Your task to perform on an android device: Clear the shopping cart on target.com. Add "bose soundsport free" to the cart on target.com, then select checkout. Image 0: 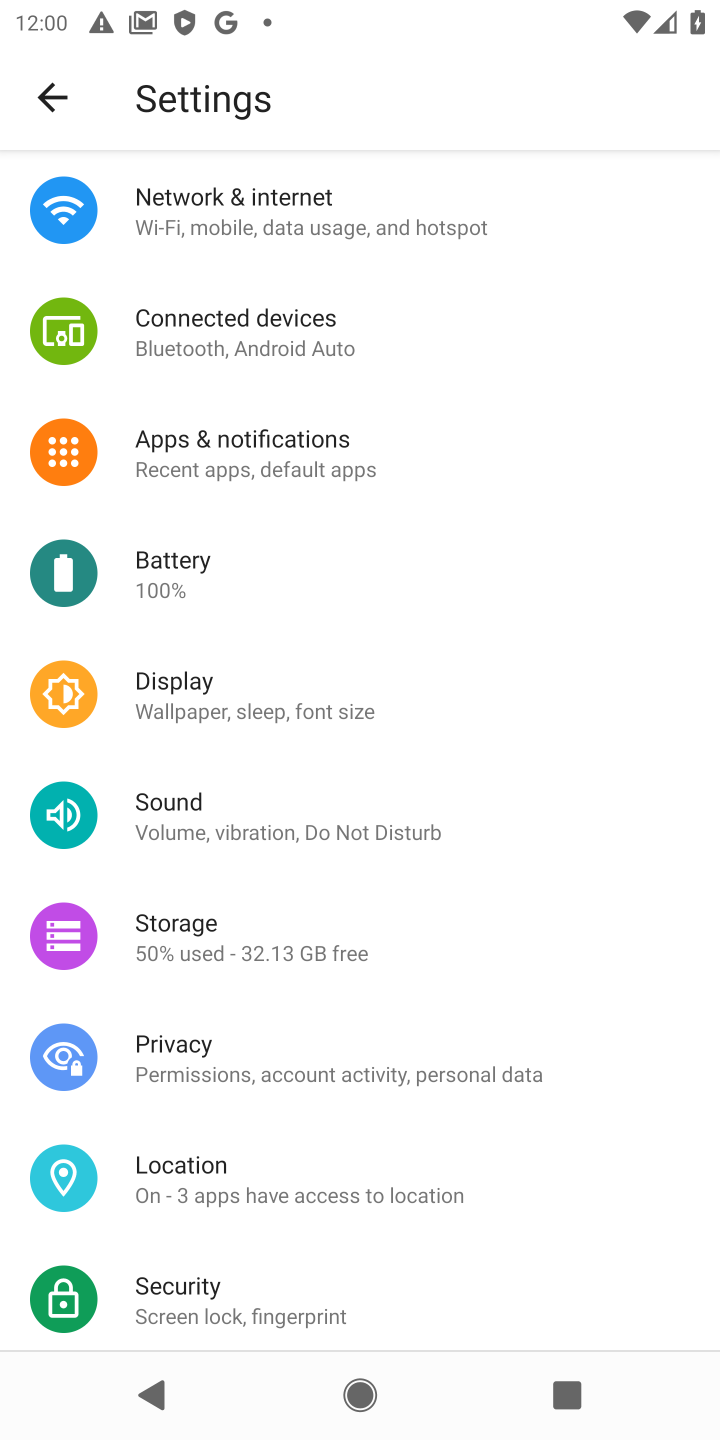
Step 0: press home button
Your task to perform on an android device: Clear the shopping cart on target.com. Add "bose soundsport free" to the cart on target.com, then select checkout. Image 1: 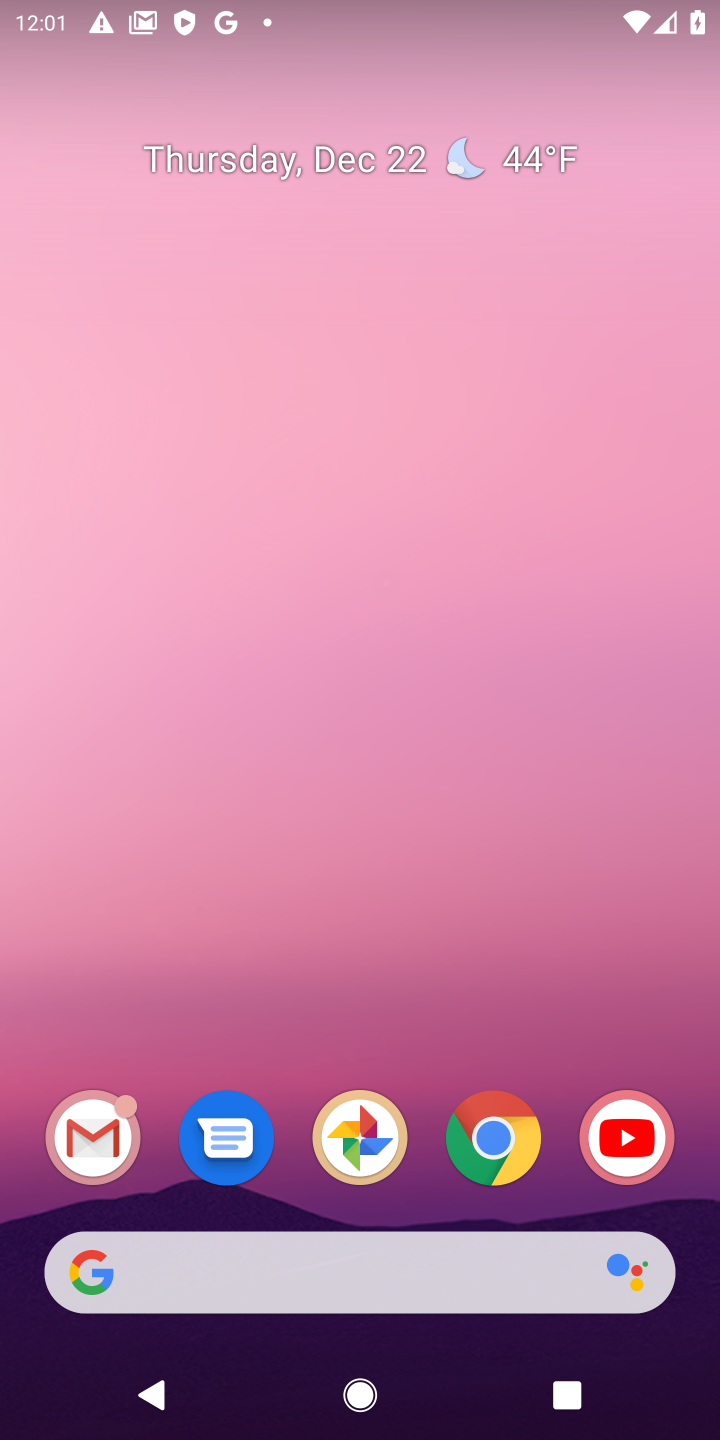
Step 1: click (498, 1142)
Your task to perform on an android device: Clear the shopping cart on target.com. Add "bose soundsport free" to the cart on target.com, then select checkout. Image 2: 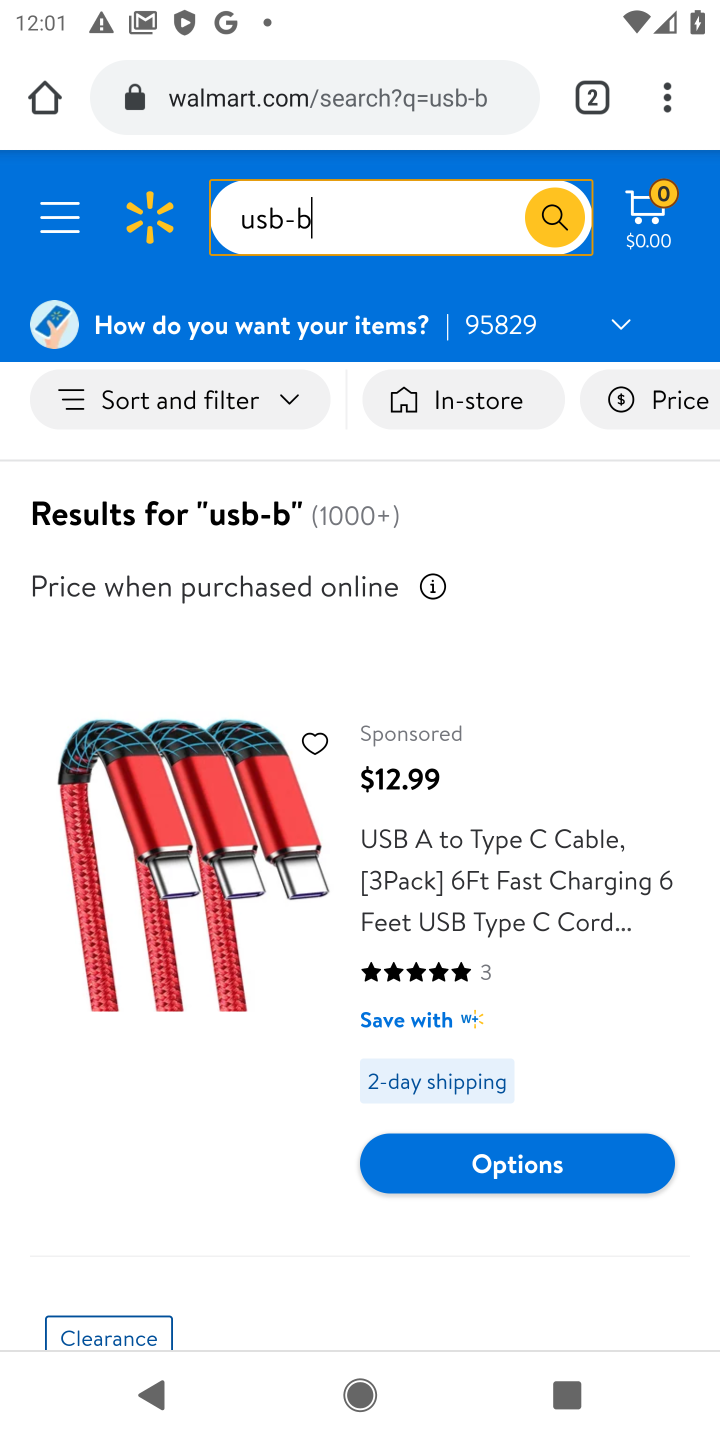
Step 2: click (256, 113)
Your task to perform on an android device: Clear the shopping cart on target.com. Add "bose soundsport free" to the cart on target.com, then select checkout. Image 3: 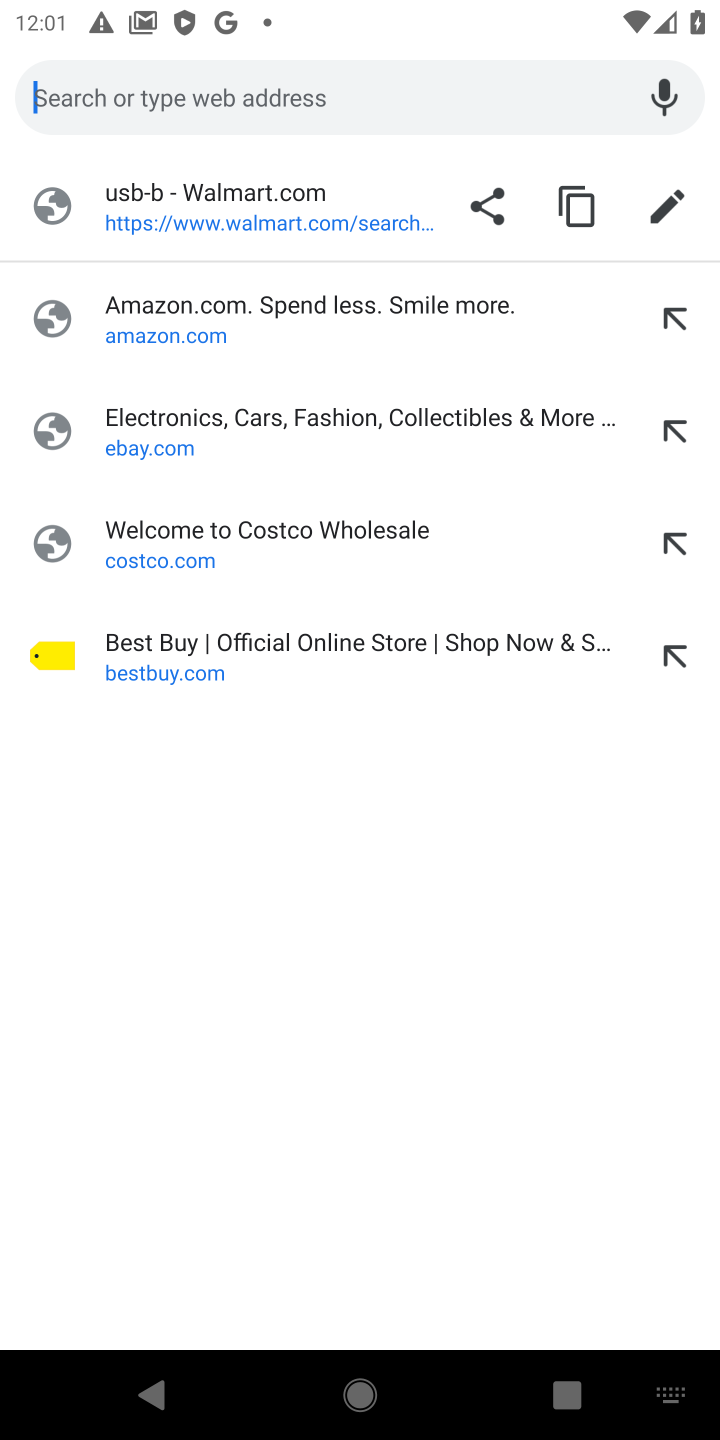
Step 3: type "target.co"
Your task to perform on an android device: Clear the shopping cart on target.com. Add "bose soundsport free" to the cart on target.com, then select checkout. Image 4: 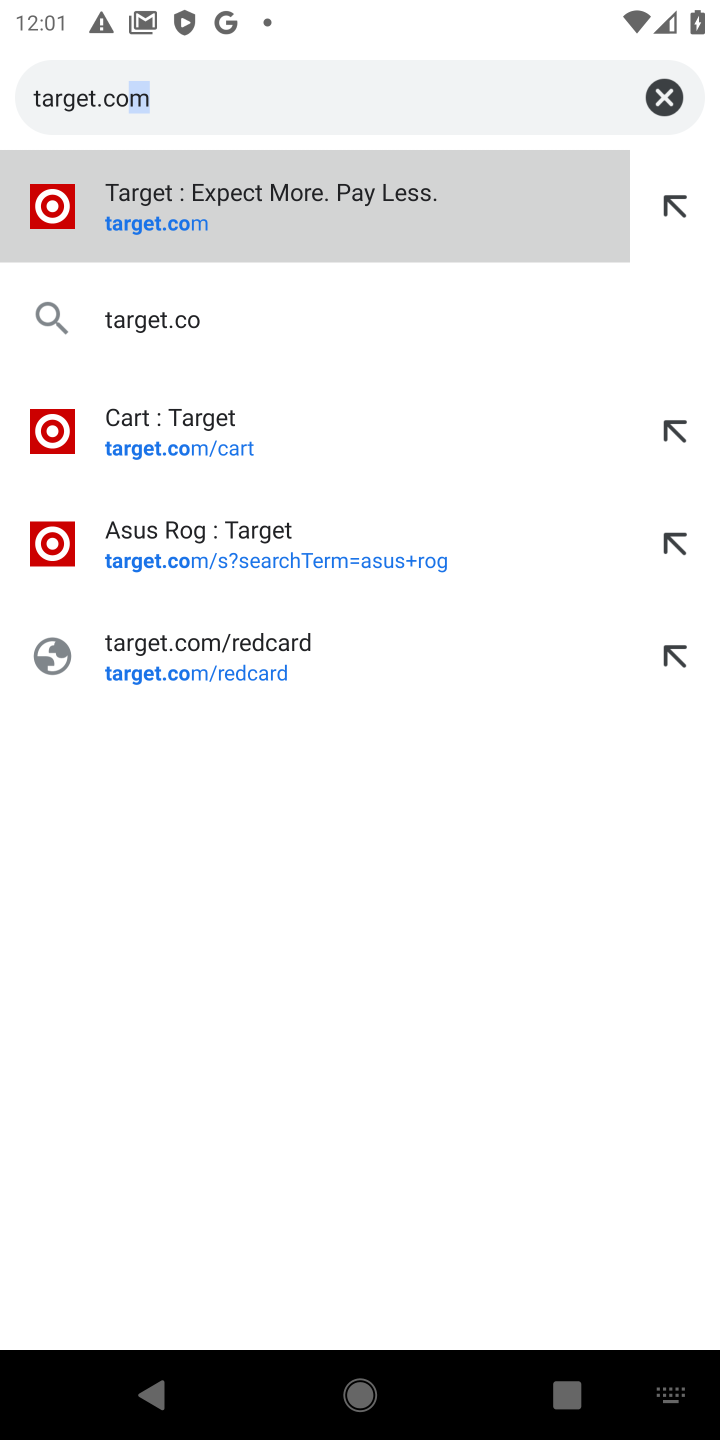
Step 4: click (117, 222)
Your task to perform on an android device: Clear the shopping cart on target.com. Add "bose soundsport free" to the cart on target.com, then select checkout. Image 5: 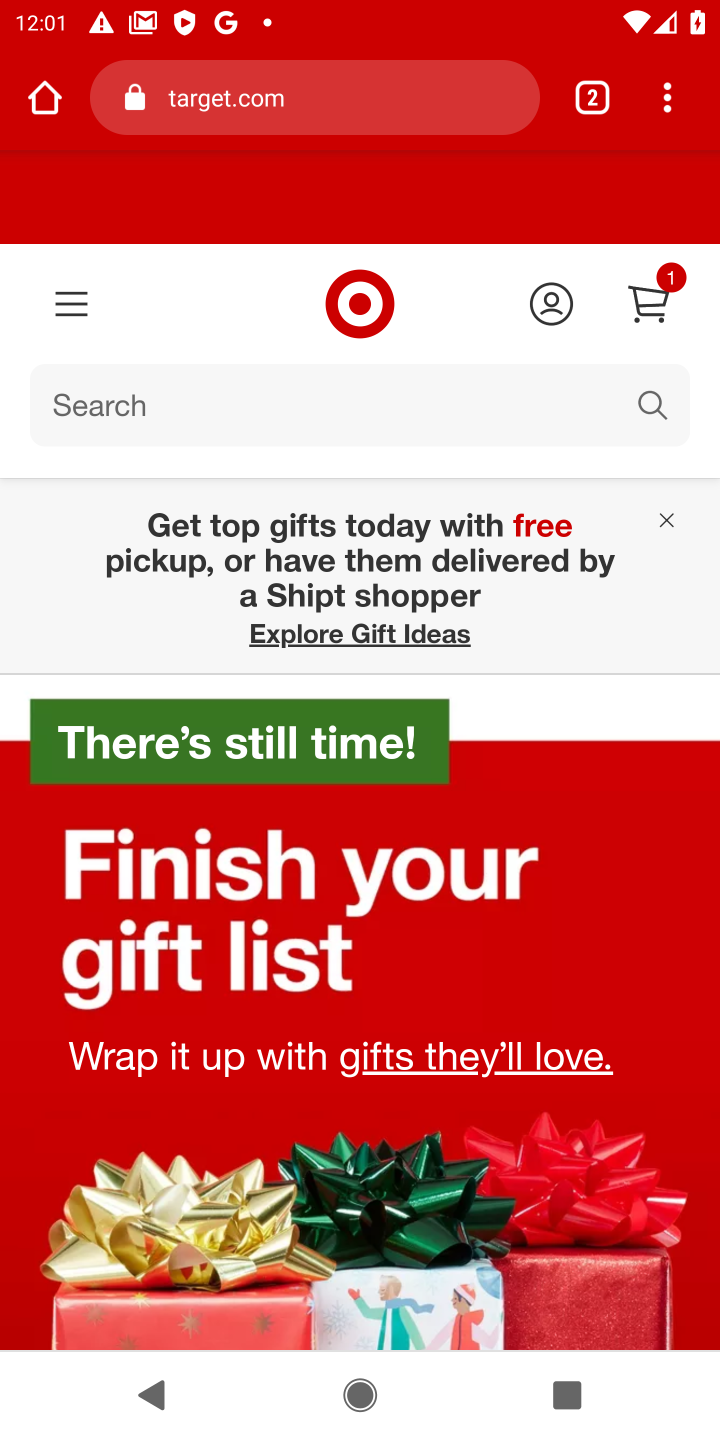
Step 5: click (652, 305)
Your task to perform on an android device: Clear the shopping cart on target.com. Add "bose soundsport free" to the cart on target.com, then select checkout. Image 6: 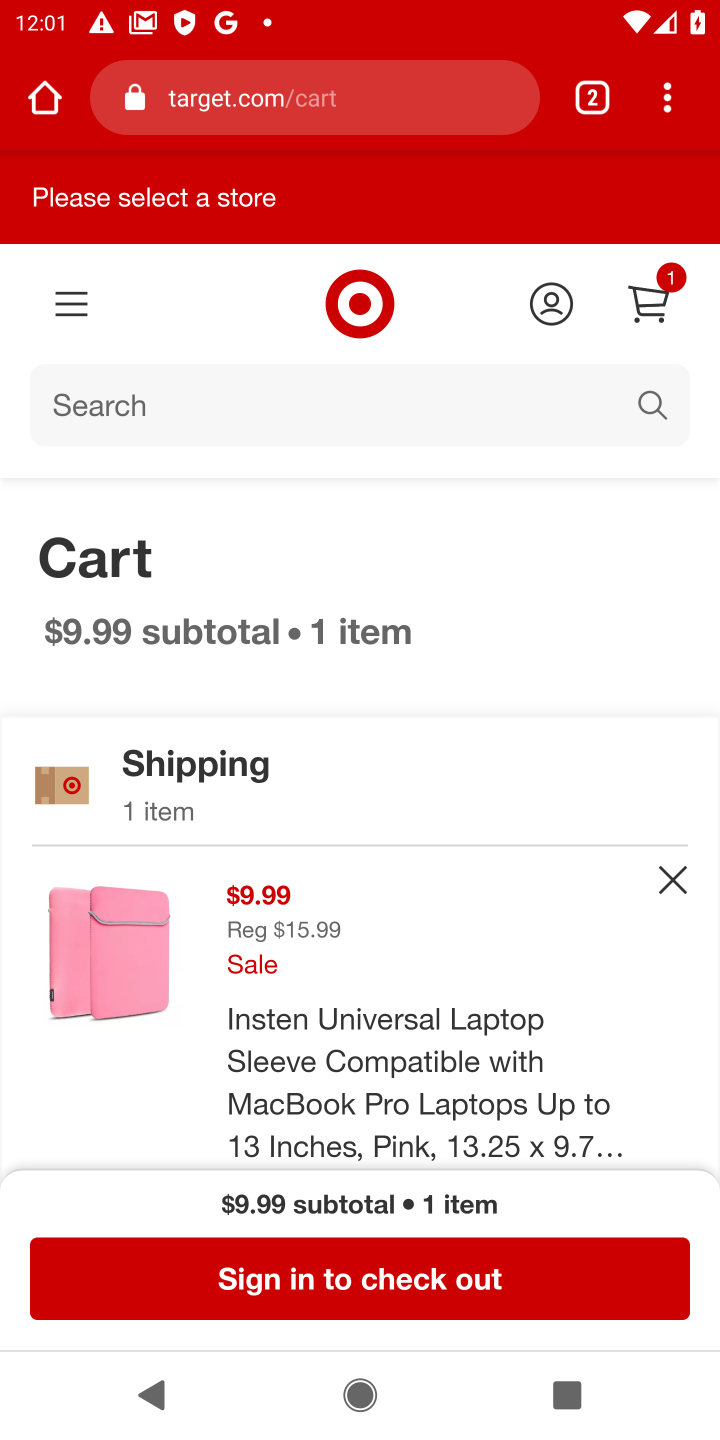
Step 6: click (664, 884)
Your task to perform on an android device: Clear the shopping cart on target.com. Add "bose soundsport free" to the cart on target.com, then select checkout. Image 7: 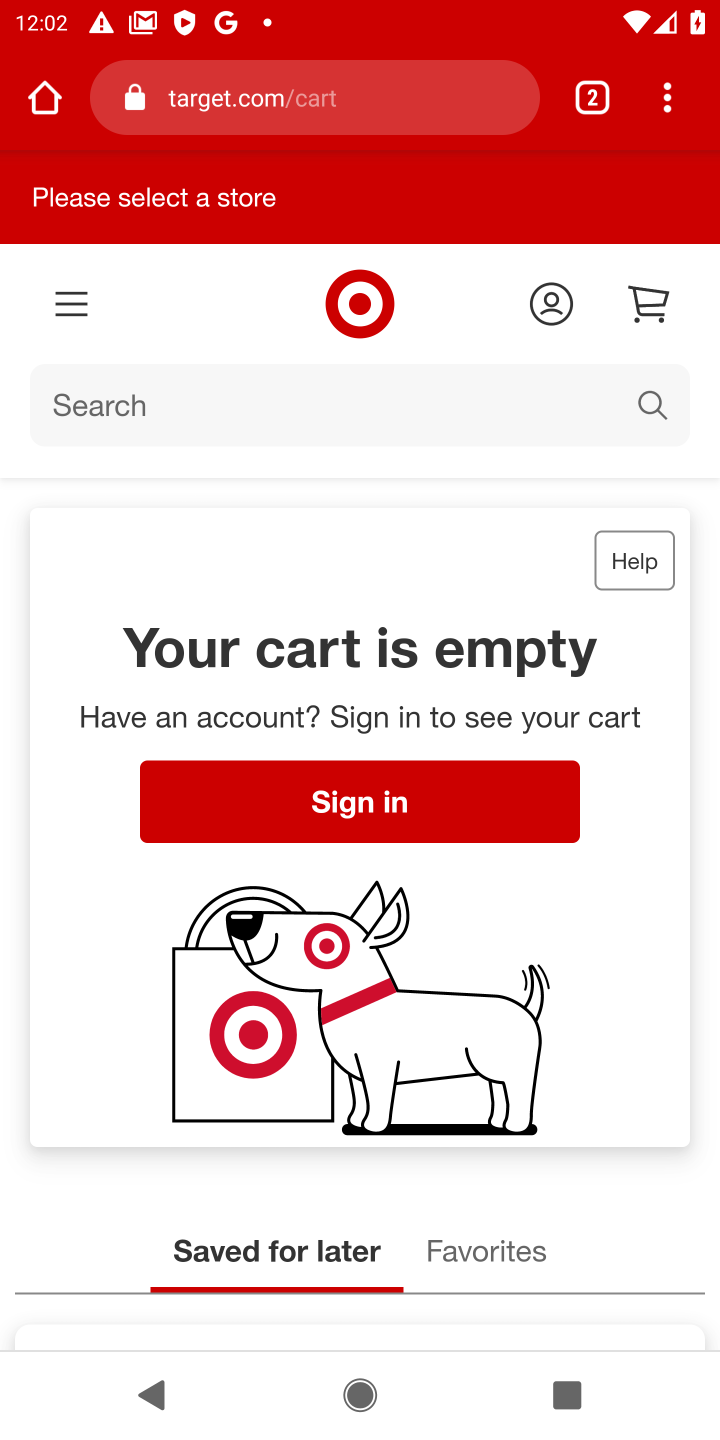
Step 7: click (108, 406)
Your task to perform on an android device: Clear the shopping cart on target.com. Add "bose soundsport free" to the cart on target.com, then select checkout. Image 8: 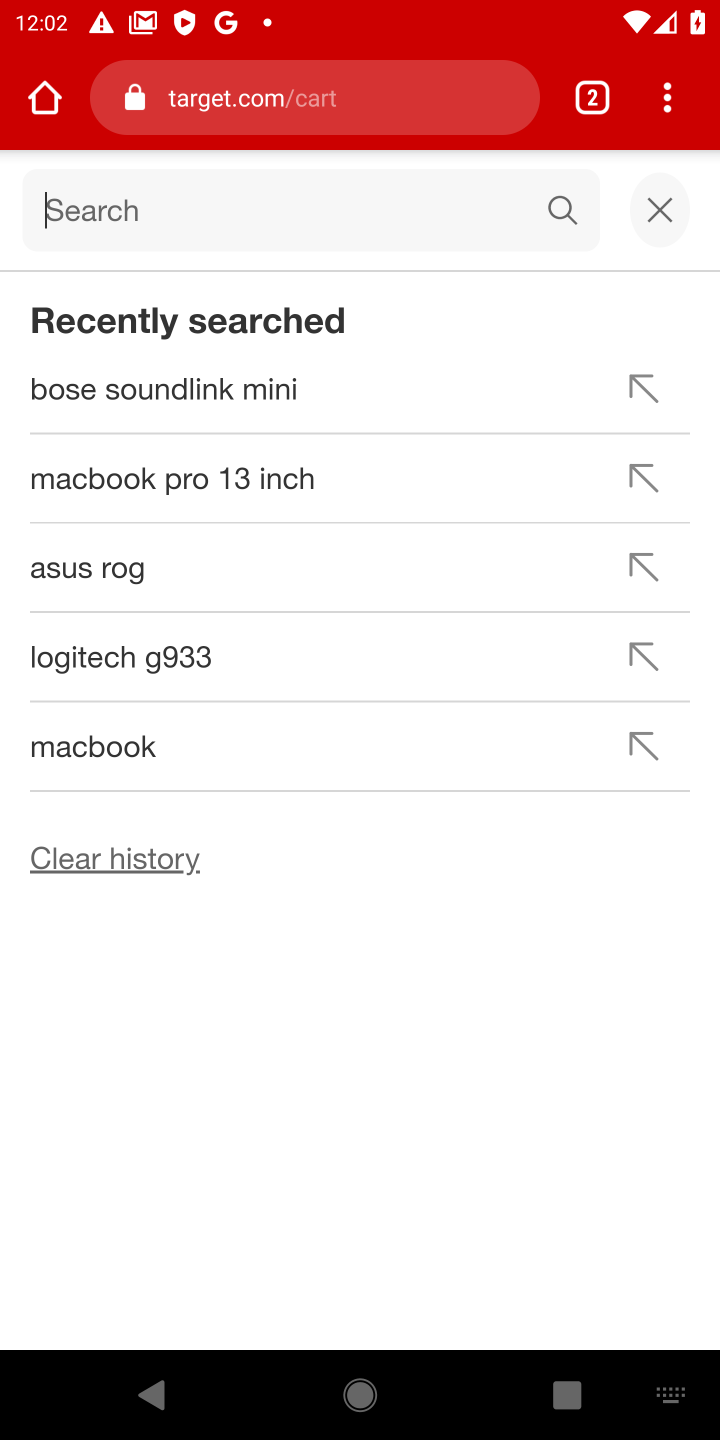
Step 8: type "bose soundsport free"
Your task to perform on an android device: Clear the shopping cart on target.com. Add "bose soundsport free" to the cart on target.com, then select checkout. Image 9: 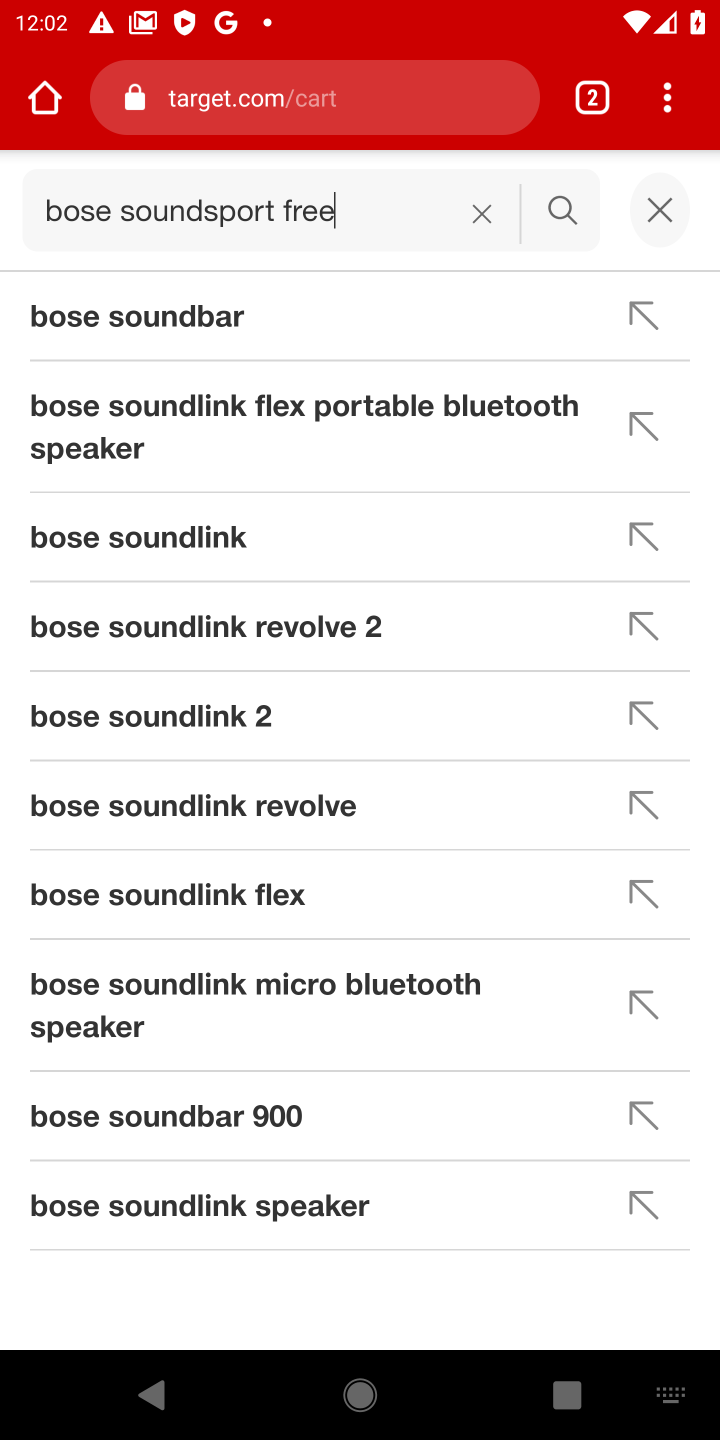
Step 9: click (555, 211)
Your task to perform on an android device: Clear the shopping cart on target.com. Add "bose soundsport free" to the cart on target.com, then select checkout. Image 10: 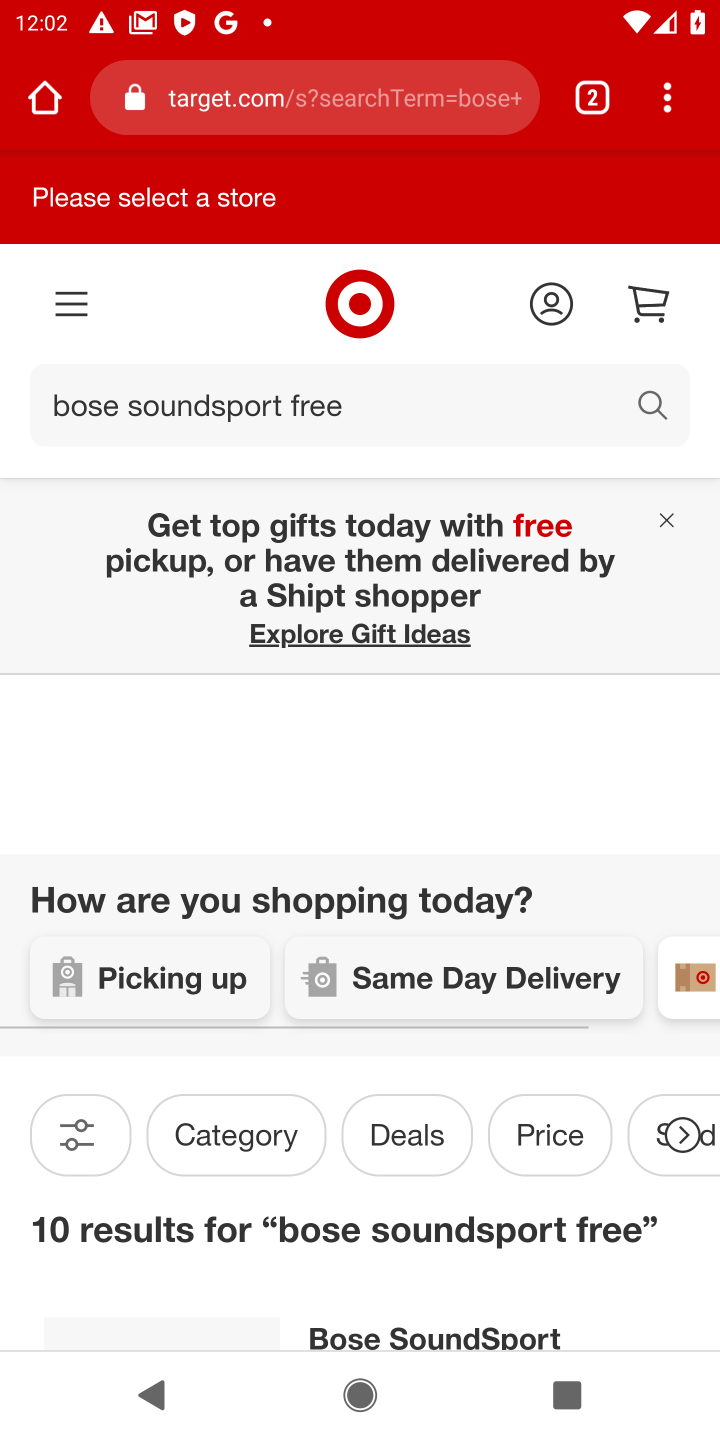
Step 10: task complete